Your task to perform on an android device: toggle improve location accuracy Image 0: 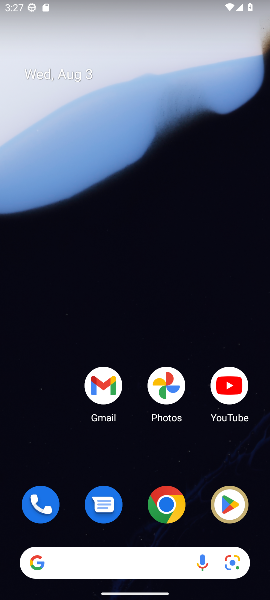
Step 0: drag from (94, 459) to (148, 1)
Your task to perform on an android device: toggle improve location accuracy Image 1: 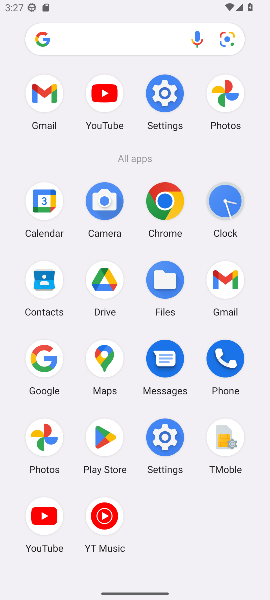
Step 1: click (176, 448)
Your task to perform on an android device: toggle improve location accuracy Image 2: 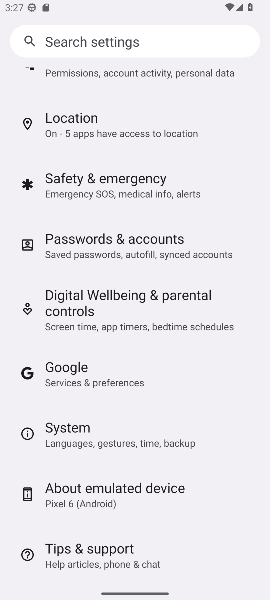
Step 2: click (116, 133)
Your task to perform on an android device: toggle improve location accuracy Image 3: 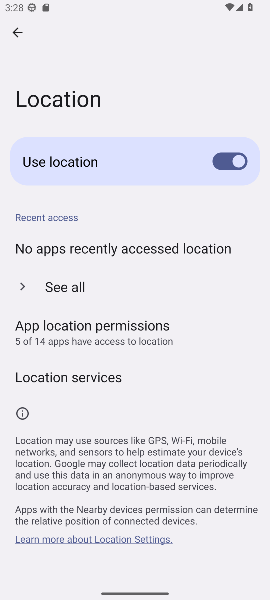
Step 3: drag from (113, 420) to (118, 245)
Your task to perform on an android device: toggle improve location accuracy Image 4: 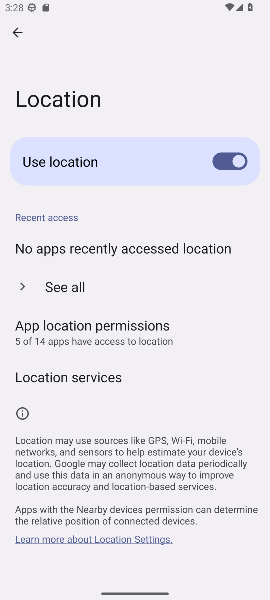
Step 4: drag from (98, 269) to (91, 405)
Your task to perform on an android device: toggle improve location accuracy Image 5: 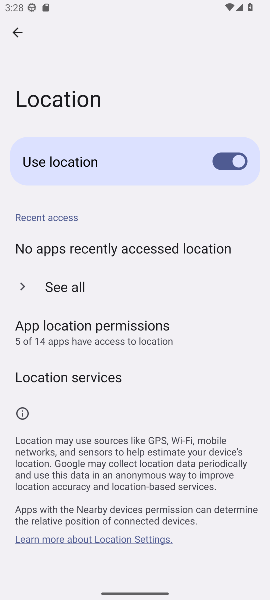
Step 5: click (61, 286)
Your task to perform on an android device: toggle improve location accuracy Image 6: 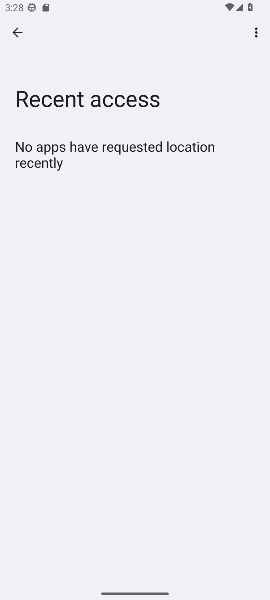
Step 6: click (22, 34)
Your task to perform on an android device: toggle improve location accuracy Image 7: 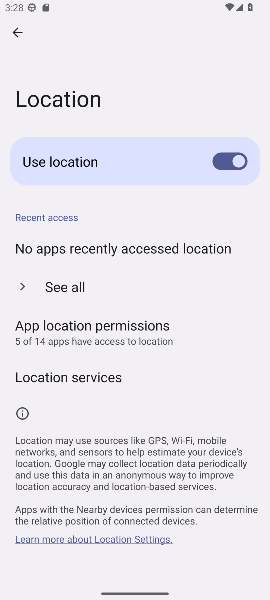
Step 7: drag from (98, 469) to (105, 321)
Your task to perform on an android device: toggle improve location accuracy Image 8: 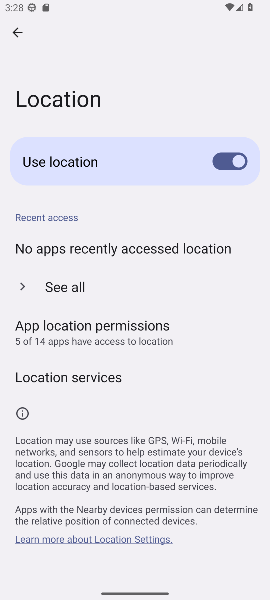
Step 8: click (66, 378)
Your task to perform on an android device: toggle improve location accuracy Image 9: 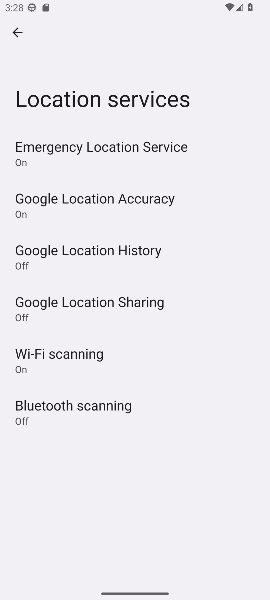
Step 9: click (138, 198)
Your task to perform on an android device: toggle improve location accuracy Image 10: 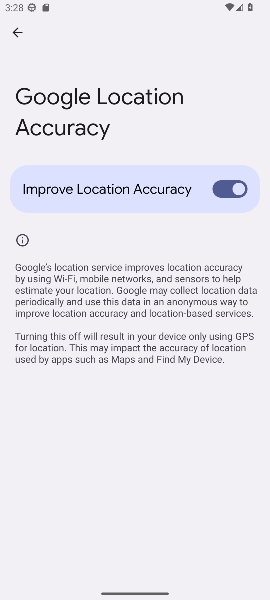
Step 10: click (212, 194)
Your task to perform on an android device: toggle improve location accuracy Image 11: 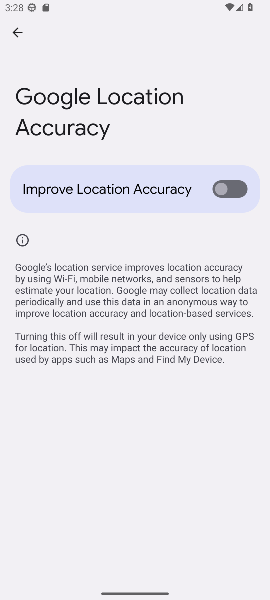
Step 11: task complete